Your task to perform on an android device: Open display settings Image 0: 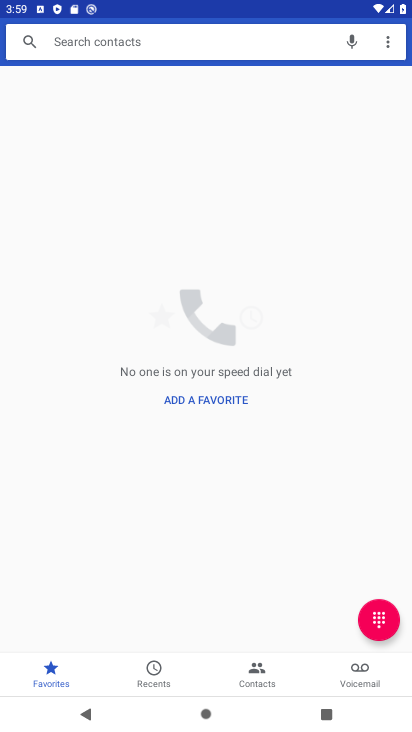
Step 0: press home button
Your task to perform on an android device: Open display settings Image 1: 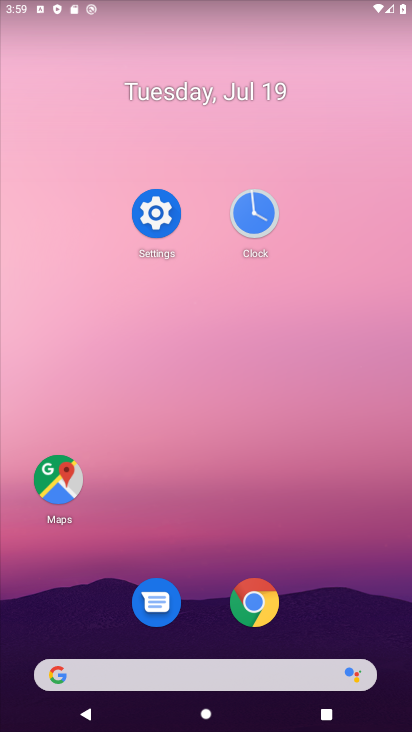
Step 1: click (151, 215)
Your task to perform on an android device: Open display settings Image 2: 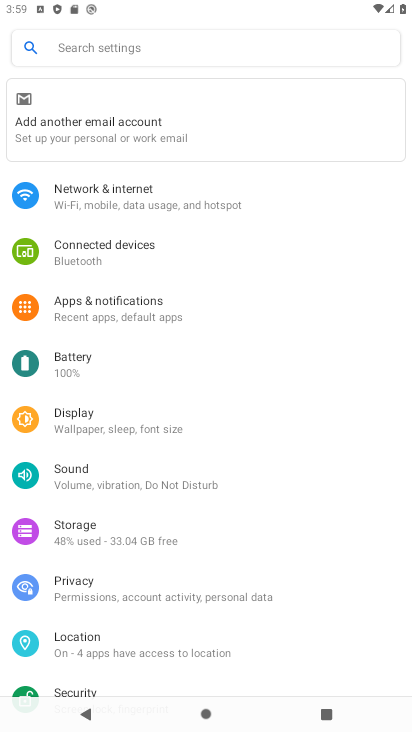
Step 2: click (100, 414)
Your task to perform on an android device: Open display settings Image 3: 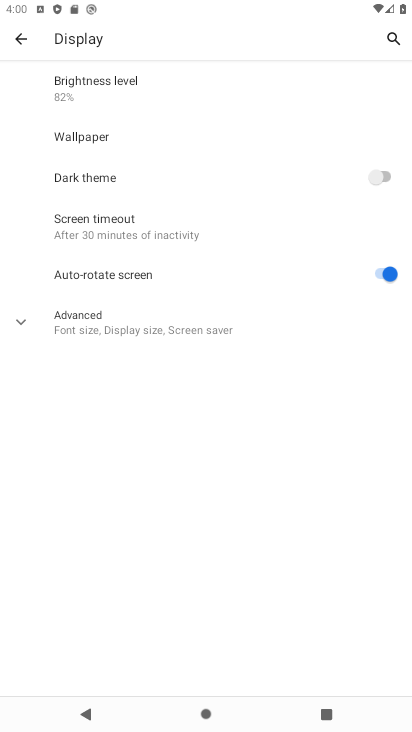
Step 3: task complete